Your task to perform on an android device: Open Wikipedia Image 0: 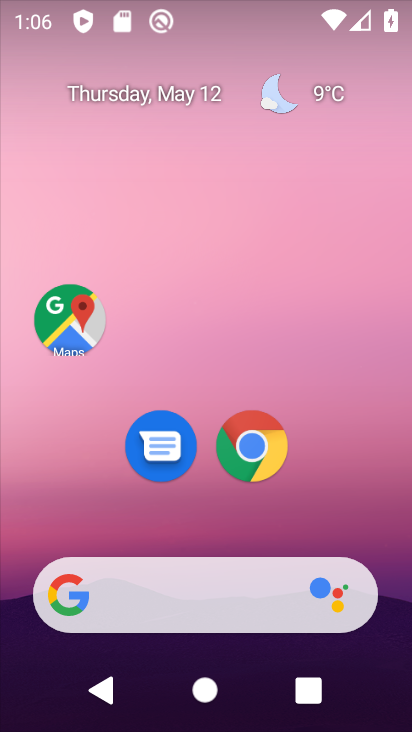
Step 0: click (271, 454)
Your task to perform on an android device: Open Wikipedia Image 1: 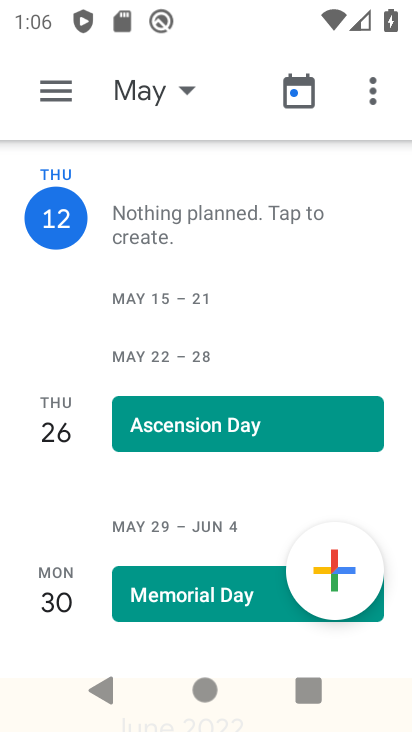
Step 1: press home button
Your task to perform on an android device: Open Wikipedia Image 2: 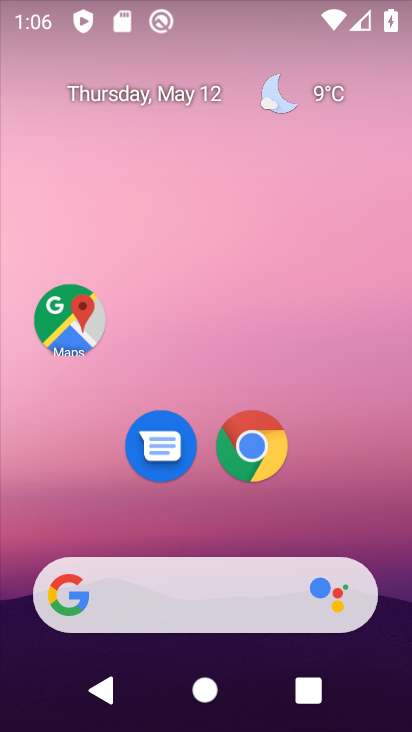
Step 2: drag from (178, 558) to (263, 93)
Your task to perform on an android device: Open Wikipedia Image 3: 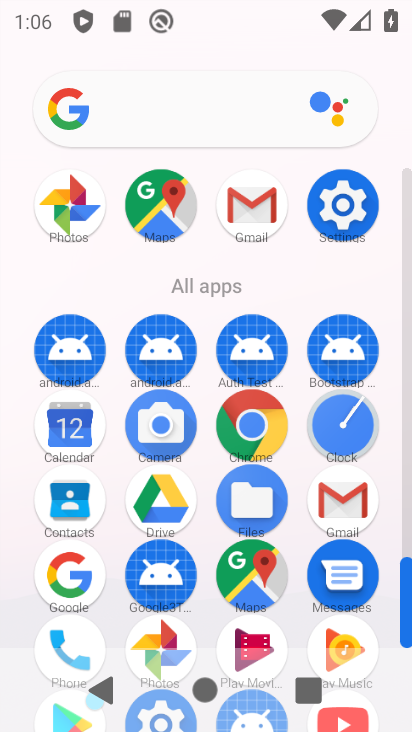
Step 3: click (255, 427)
Your task to perform on an android device: Open Wikipedia Image 4: 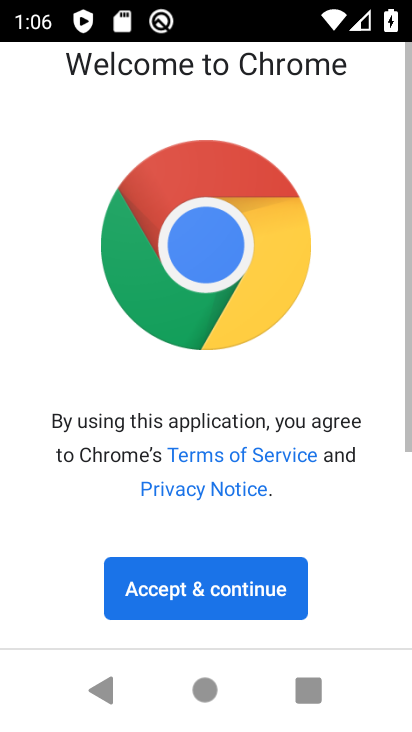
Step 4: click (252, 592)
Your task to perform on an android device: Open Wikipedia Image 5: 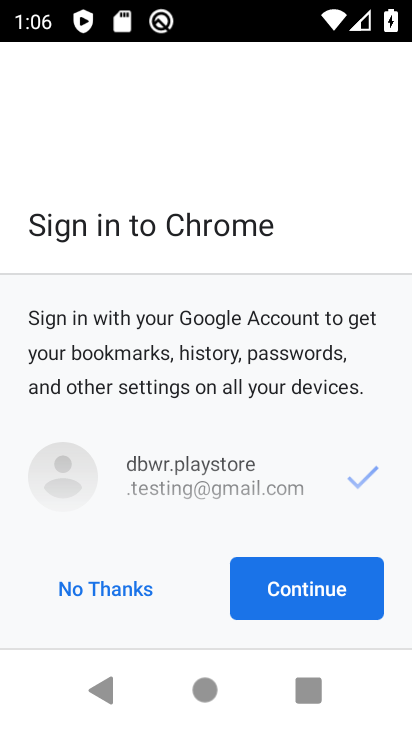
Step 5: click (362, 578)
Your task to perform on an android device: Open Wikipedia Image 6: 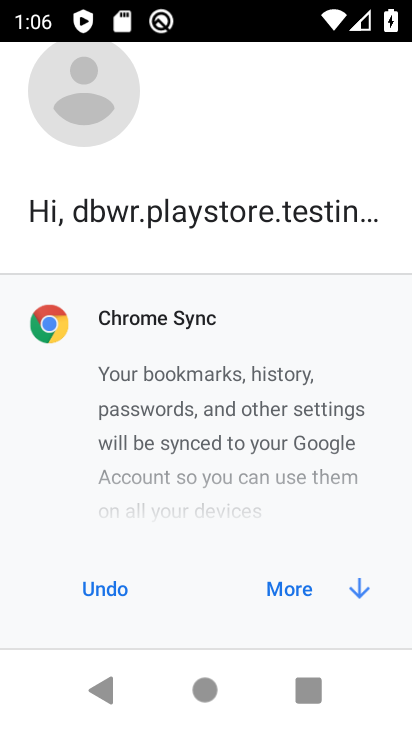
Step 6: click (343, 579)
Your task to perform on an android device: Open Wikipedia Image 7: 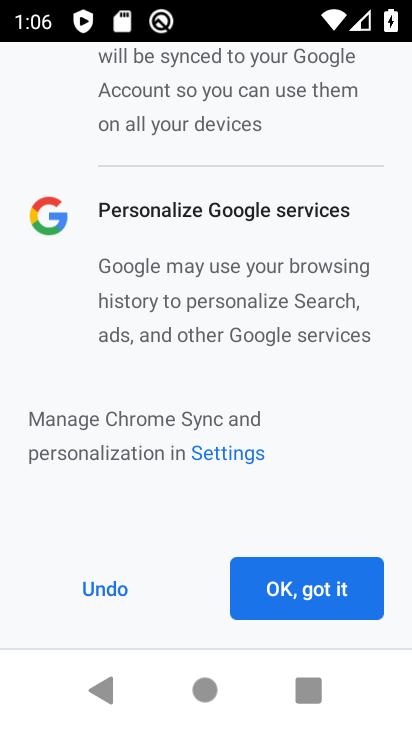
Step 7: click (325, 594)
Your task to perform on an android device: Open Wikipedia Image 8: 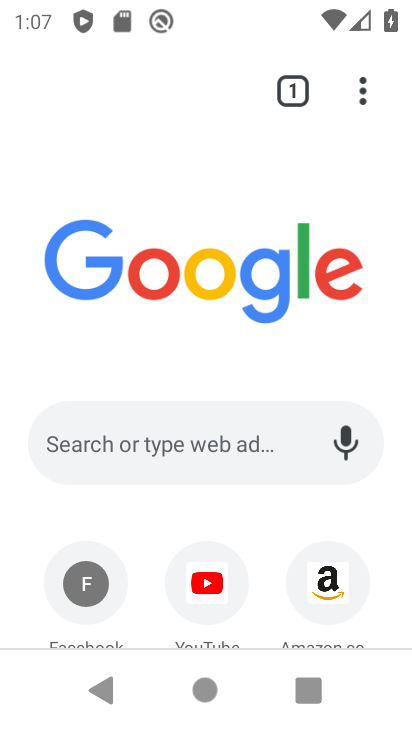
Step 8: drag from (230, 598) to (290, 308)
Your task to perform on an android device: Open Wikipedia Image 9: 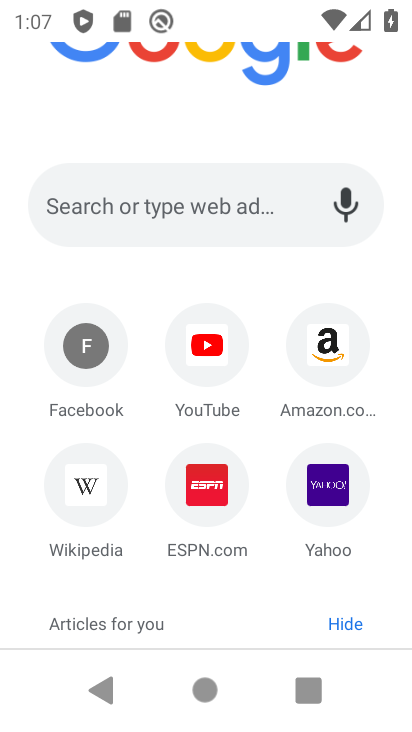
Step 9: click (99, 495)
Your task to perform on an android device: Open Wikipedia Image 10: 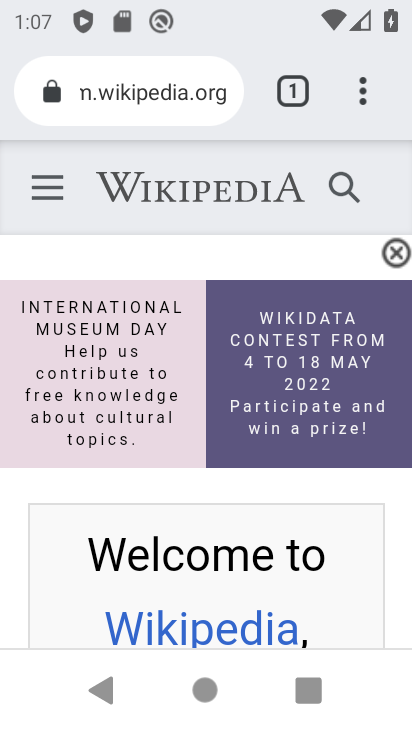
Step 10: task complete